Your task to perform on an android device: toggle wifi Image 0: 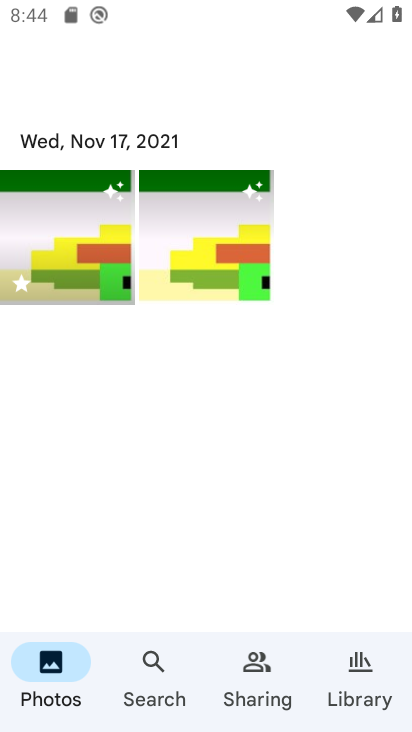
Step 0: drag from (369, 304) to (342, 32)
Your task to perform on an android device: toggle wifi Image 1: 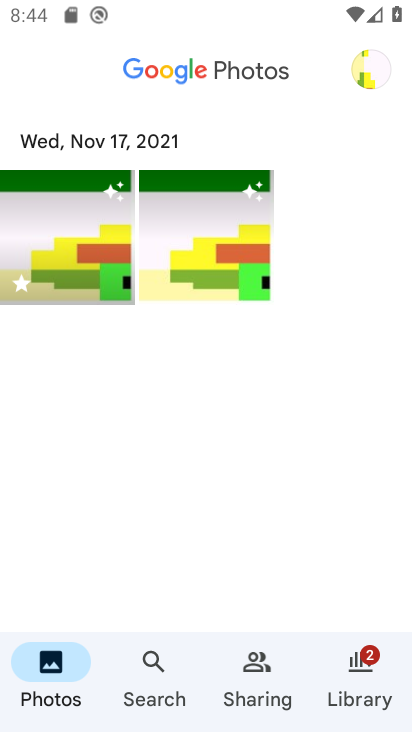
Step 1: press home button
Your task to perform on an android device: toggle wifi Image 2: 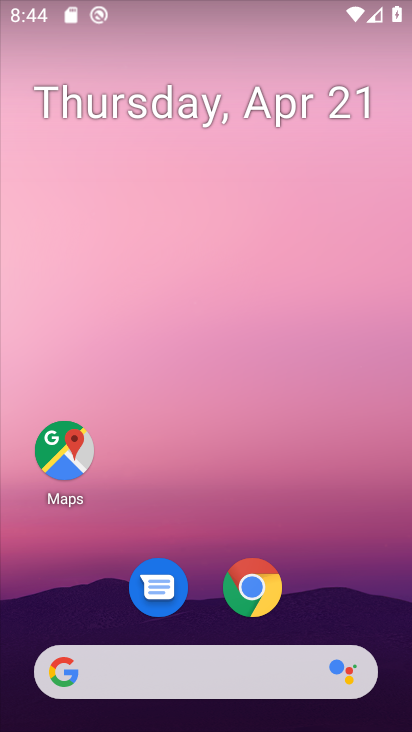
Step 2: drag from (377, 456) to (366, 251)
Your task to perform on an android device: toggle wifi Image 3: 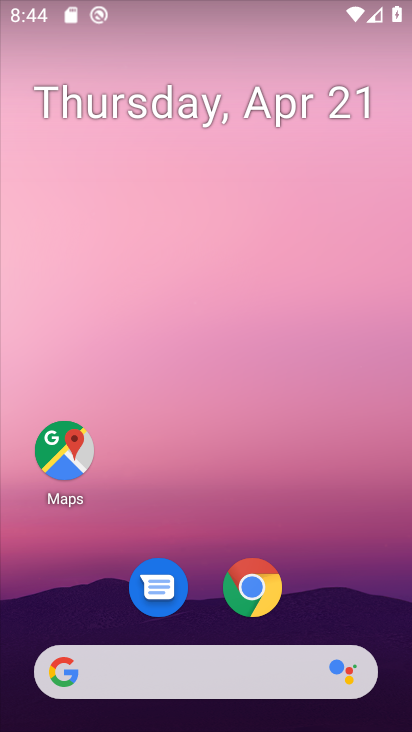
Step 3: drag from (349, 113) to (348, 55)
Your task to perform on an android device: toggle wifi Image 4: 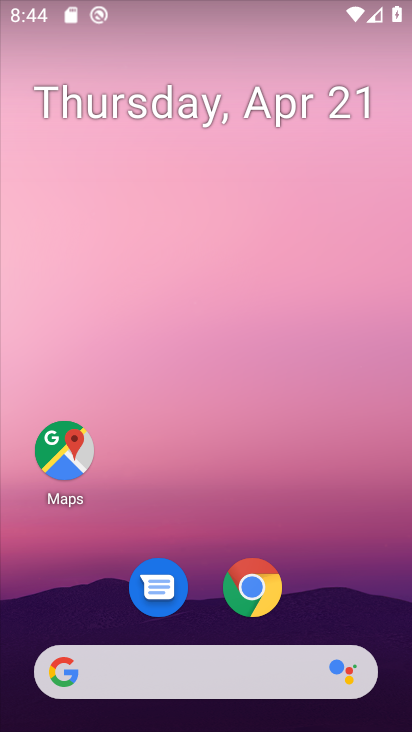
Step 4: drag from (389, 597) to (375, 180)
Your task to perform on an android device: toggle wifi Image 5: 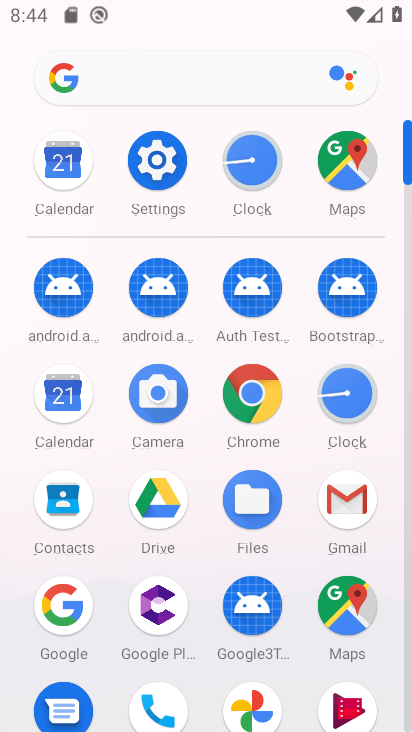
Step 5: click (156, 162)
Your task to perform on an android device: toggle wifi Image 6: 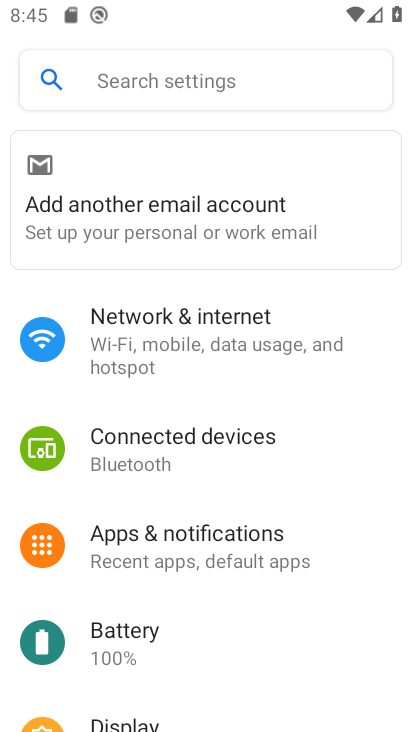
Step 6: click (124, 341)
Your task to perform on an android device: toggle wifi Image 7: 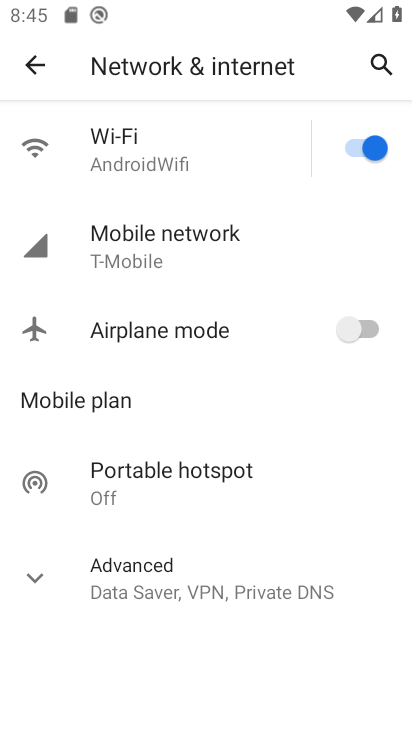
Step 7: click (351, 148)
Your task to perform on an android device: toggle wifi Image 8: 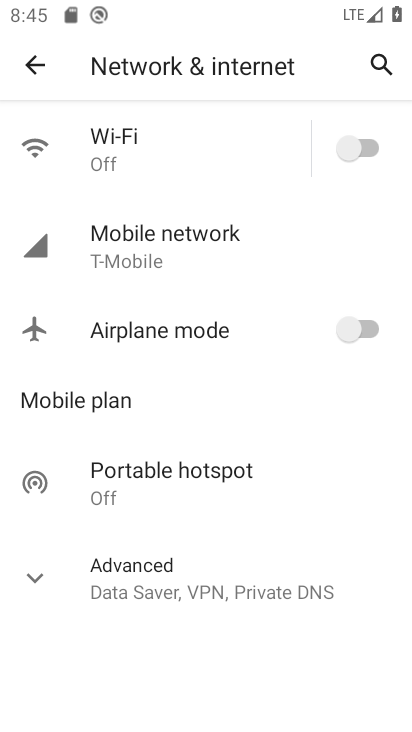
Step 8: task complete